Your task to perform on an android device: open chrome and create a bookmark for the current page Image 0: 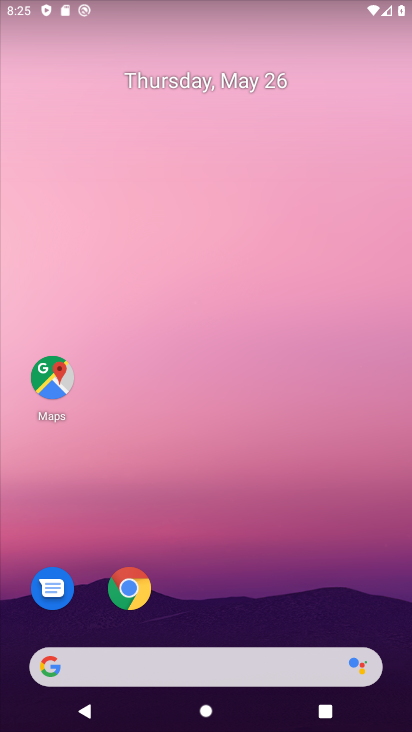
Step 0: click (133, 591)
Your task to perform on an android device: open chrome and create a bookmark for the current page Image 1: 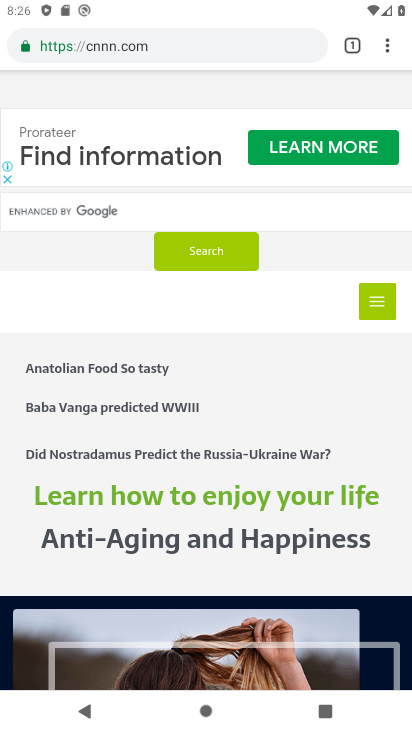
Step 1: click (388, 48)
Your task to perform on an android device: open chrome and create a bookmark for the current page Image 2: 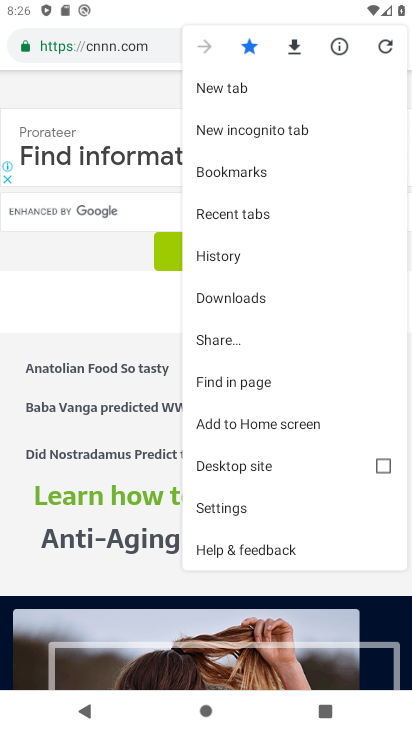
Step 2: task complete